Your task to perform on an android device: star an email in the gmail app Image 0: 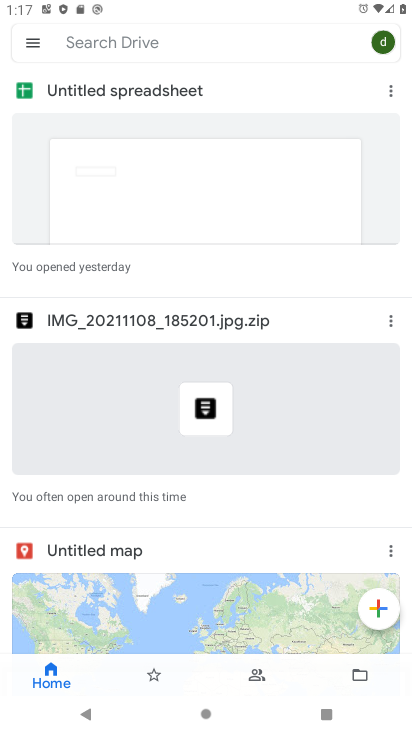
Step 0: press home button
Your task to perform on an android device: star an email in the gmail app Image 1: 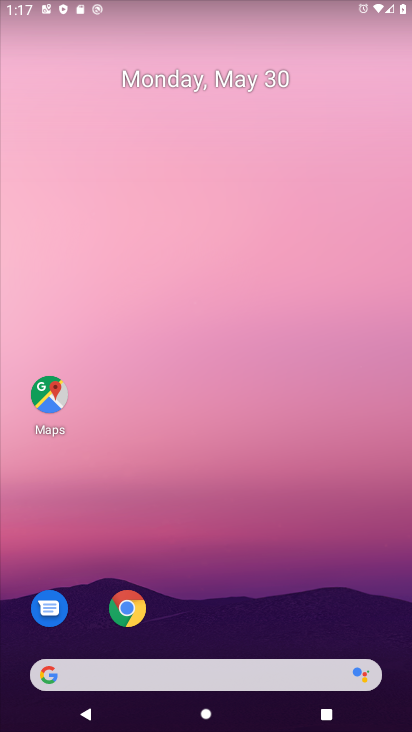
Step 1: drag from (202, 513) to (144, 19)
Your task to perform on an android device: star an email in the gmail app Image 2: 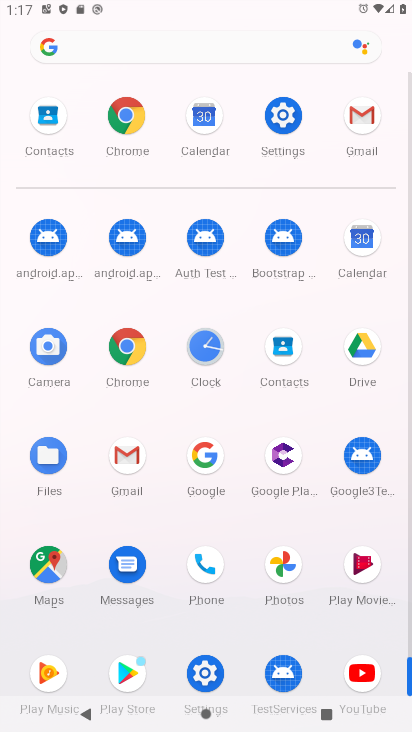
Step 2: click (137, 461)
Your task to perform on an android device: star an email in the gmail app Image 3: 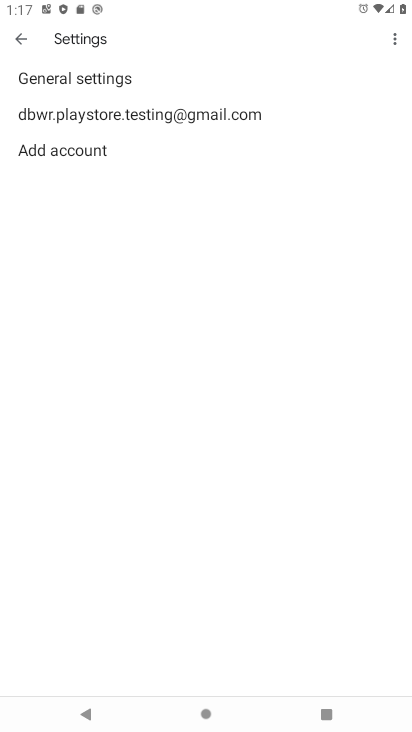
Step 3: click (17, 42)
Your task to perform on an android device: star an email in the gmail app Image 4: 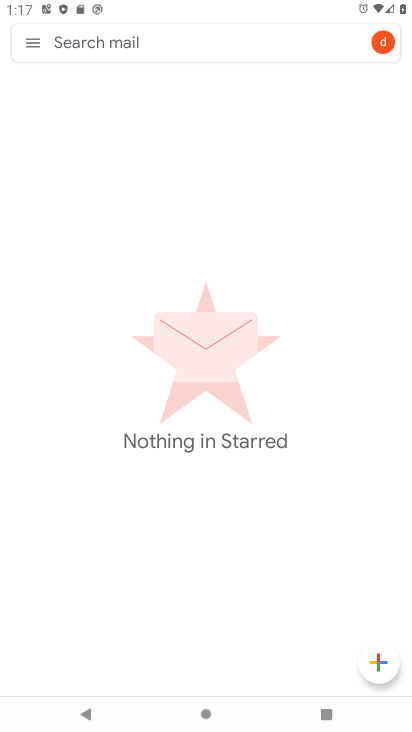
Step 4: click (19, 39)
Your task to perform on an android device: star an email in the gmail app Image 5: 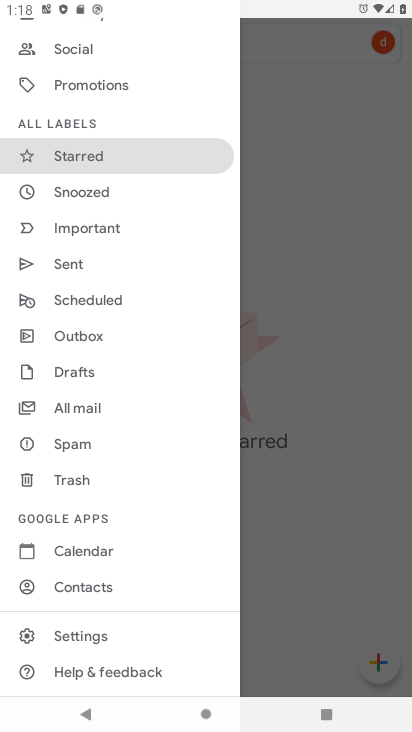
Step 5: click (90, 407)
Your task to perform on an android device: star an email in the gmail app Image 6: 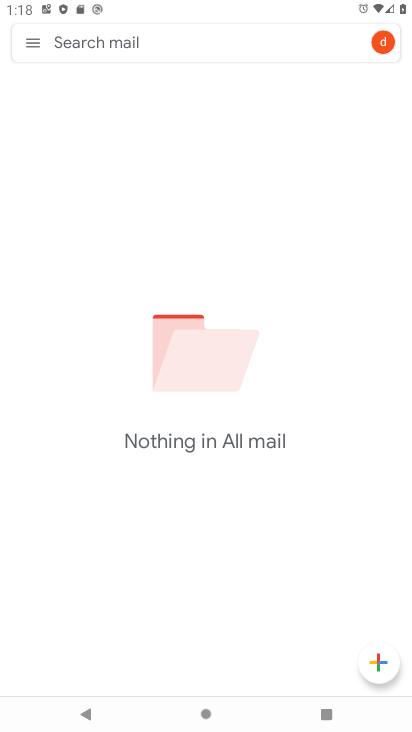
Step 6: task complete